Your task to perform on an android device: add a contact in the contacts app Image 0: 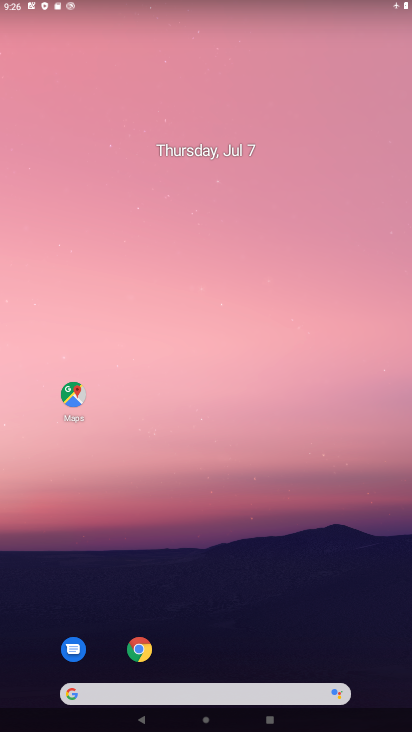
Step 0: drag from (238, 719) to (215, 187)
Your task to perform on an android device: add a contact in the contacts app Image 1: 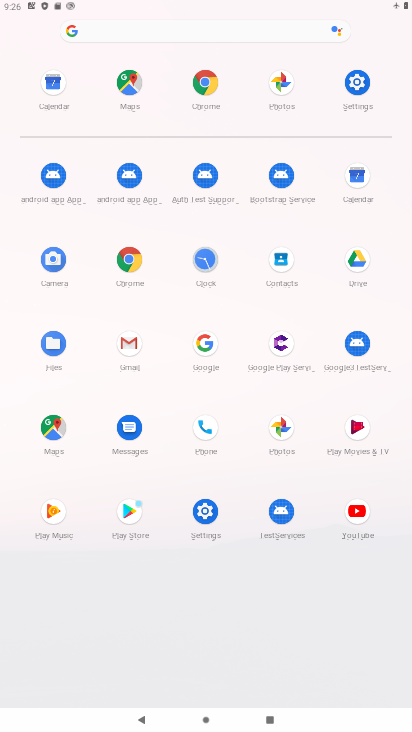
Step 1: click (282, 259)
Your task to perform on an android device: add a contact in the contacts app Image 2: 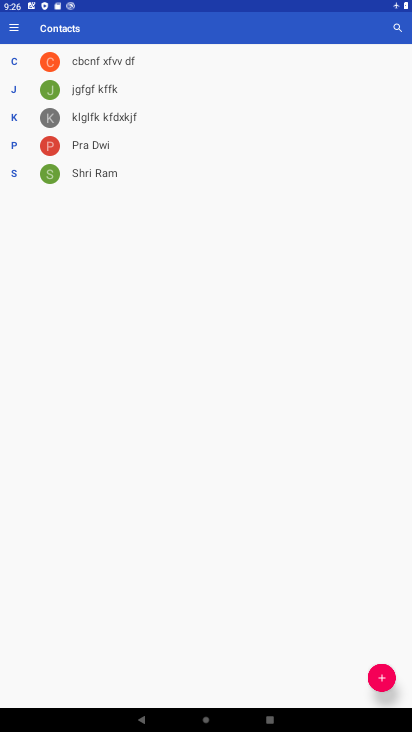
Step 2: click (381, 676)
Your task to perform on an android device: add a contact in the contacts app Image 3: 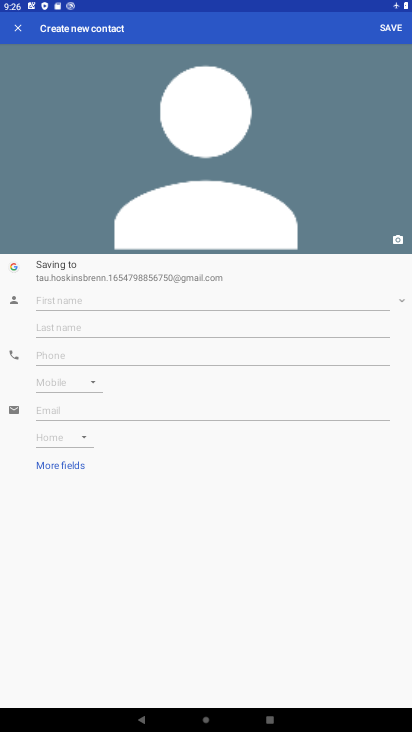
Step 3: click (79, 299)
Your task to perform on an android device: add a contact in the contacts app Image 4: 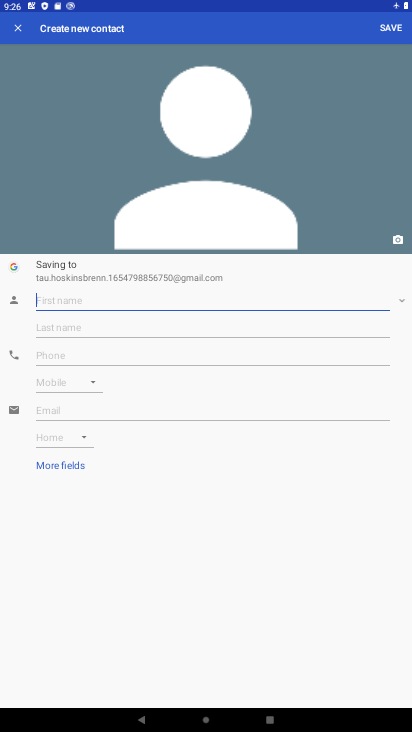
Step 4: type "uno"
Your task to perform on an android device: add a contact in the contacts app Image 5: 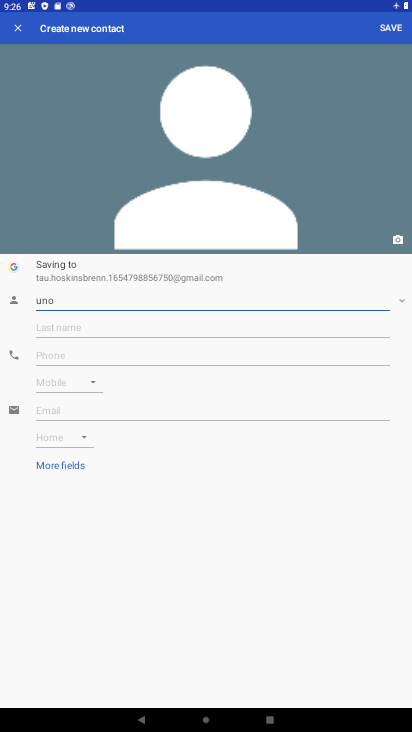
Step 5: click (76, 353)
Your task to perform on an android device: add a contact in the contacts app Image 6: 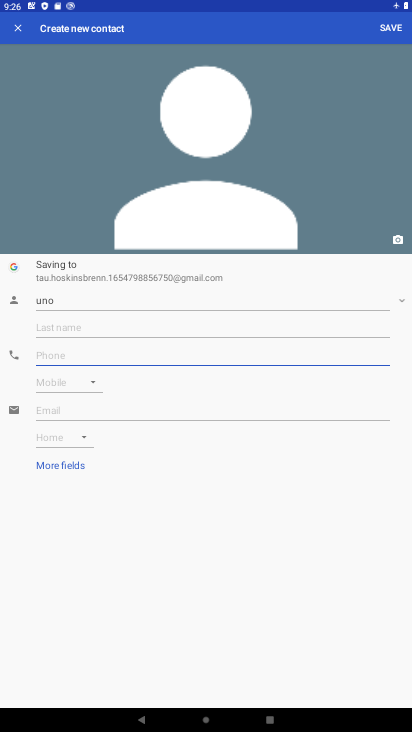
Step 6: type "9090"
Your task to perform on an android device: add a contact in the contacts app Image 7: 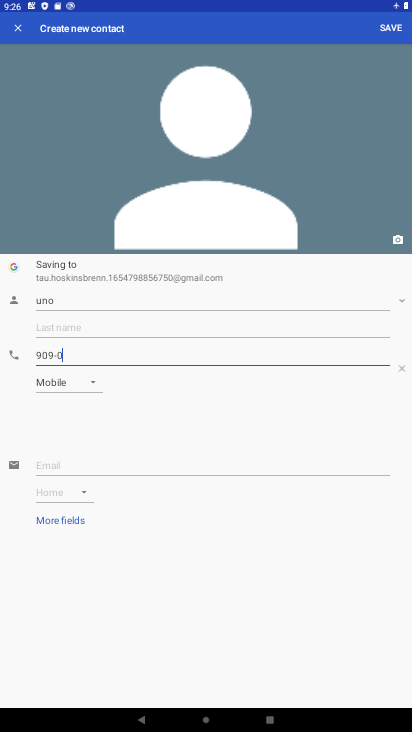
Step 7: type ""
Your task to perform on an android device: add a contact in the contacts app Image 8: 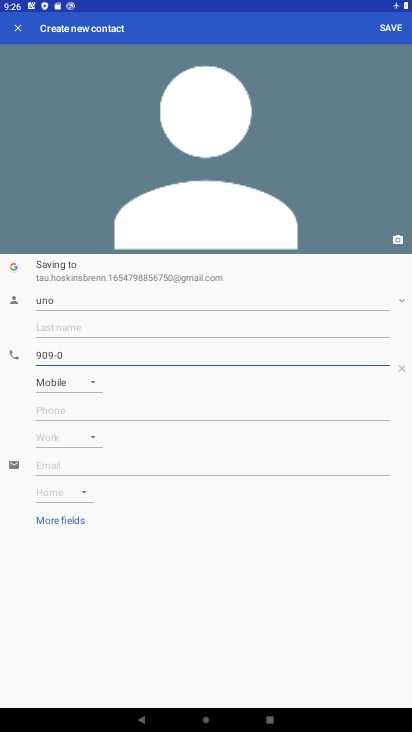
Step 8: click (395, 31)
Your task to perform on an android device: add a contact in the contacts app Image 9: 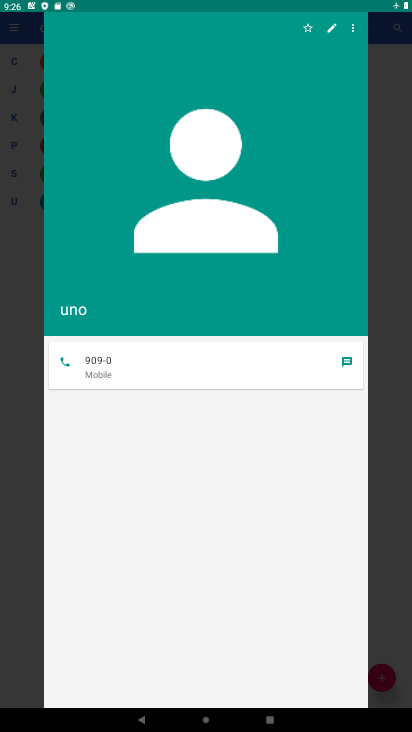
Step 9: task complete